Your task to perform on an android device: turn off translation in the chrome app Image 0: 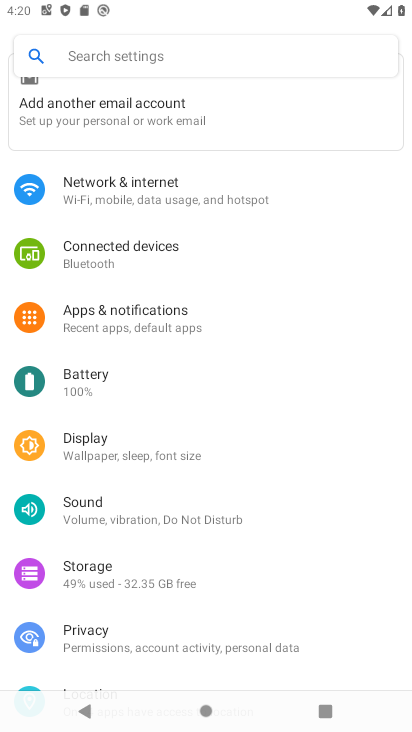
Step 0: press home button
Your task to perform on an android device: turn off translation in the chrome app Image 1: 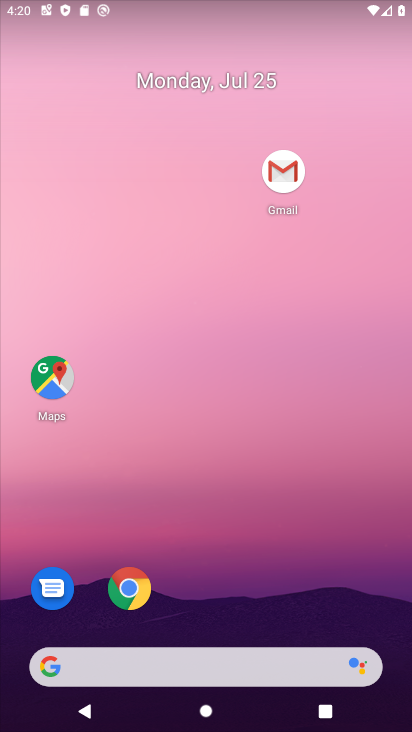
Step 1: drag from (214, 587) to (218, 61)
Your task to perform on an android device: turn off translation in the chrome app Image 2: 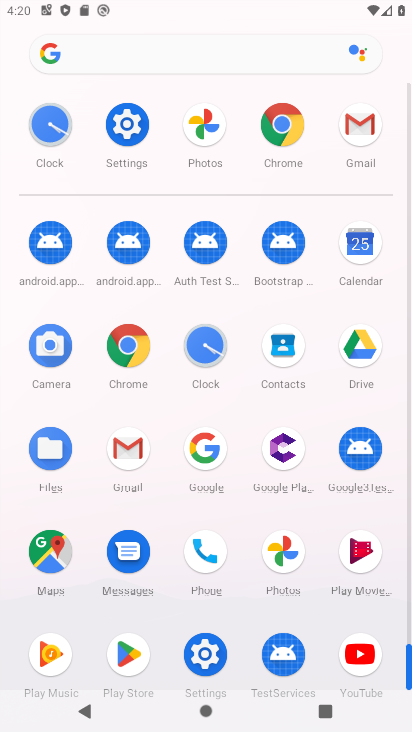
Step 2: click (127, 357)
Your task to perform on an android device: turn off translation in the chrome app Image 3: 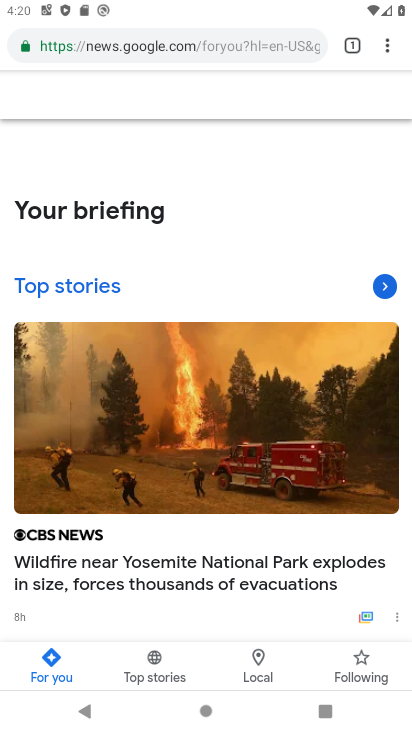
Step 3: drag from (391, 42) to (242, 545)
Your task to perform on an android device: turn off translation in the chrome app Image 4: 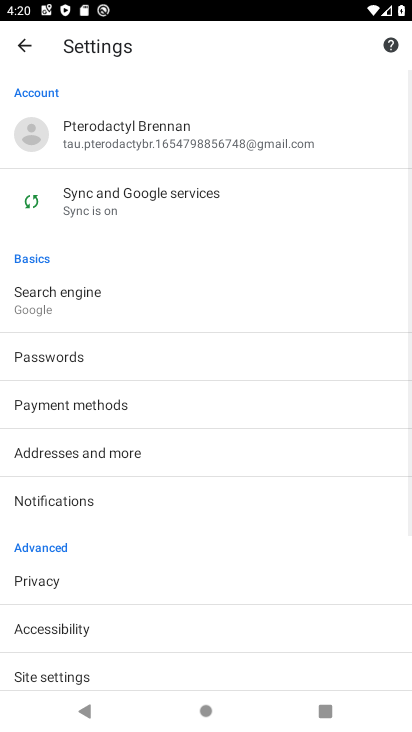
Step 4: drag from (147, 622) to (262, 111)
Your task to perform on an android device: turn off translation in the chrome app Image 5: 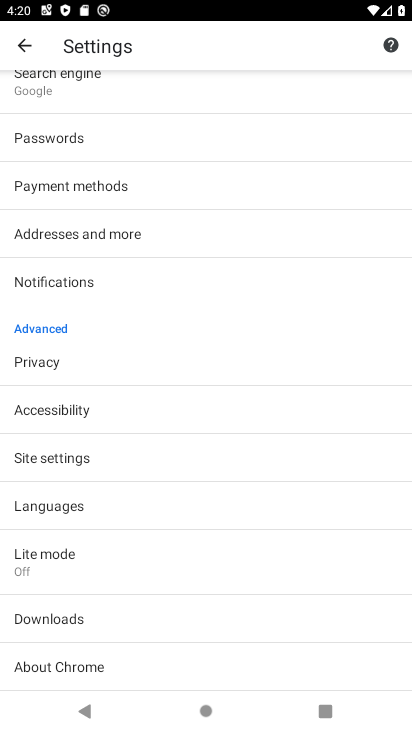
Step 5: click (71, 512)
Your task to perform on an android device: turn off translation in the chrome app Image 6: 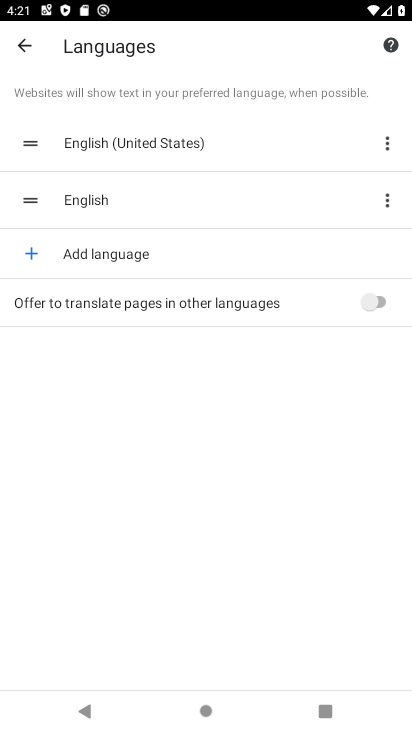
Step 6: task complete